Your task to perform on an android device: turn off data saver in the chrome app Image 0: 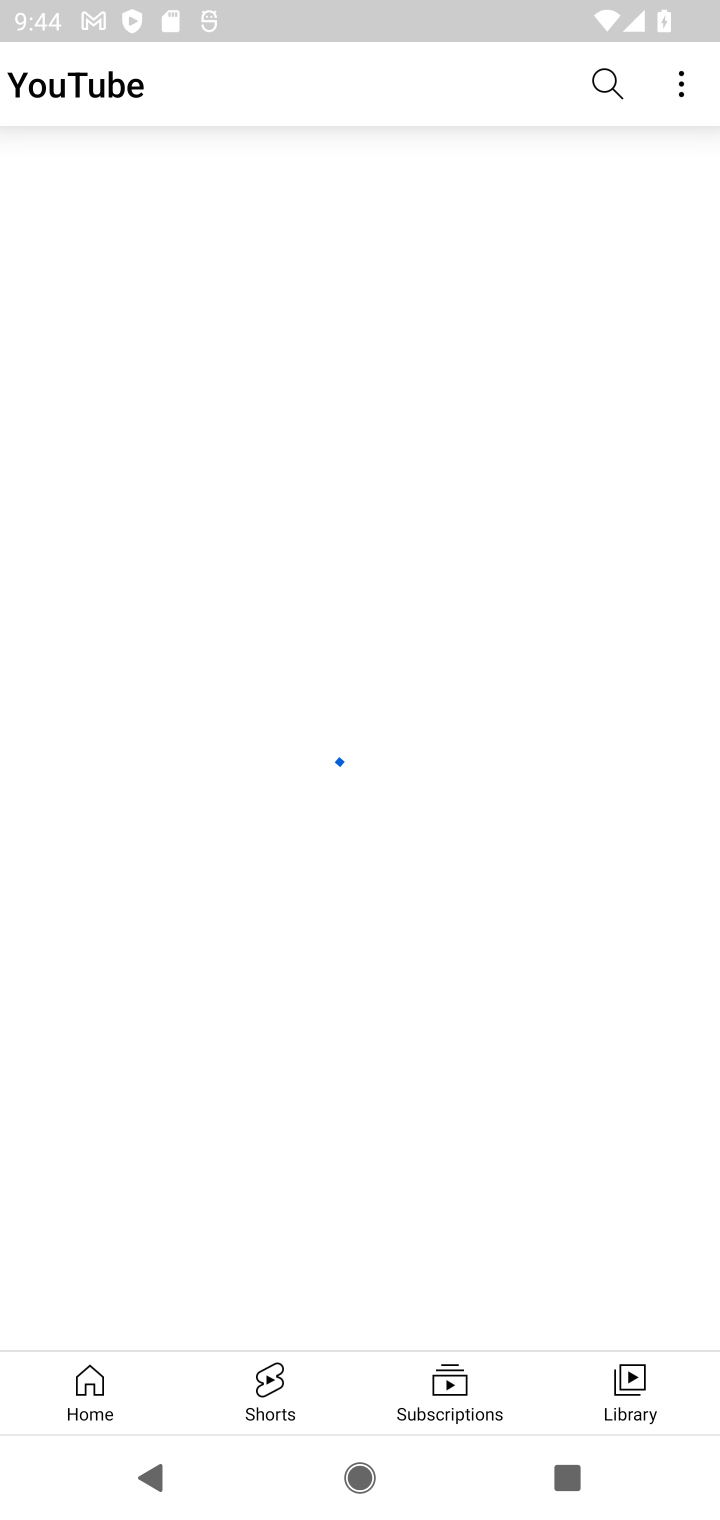
Step 0: press home button
Your task to perform on an android device: turn off data saver in the chrome app Image 1: 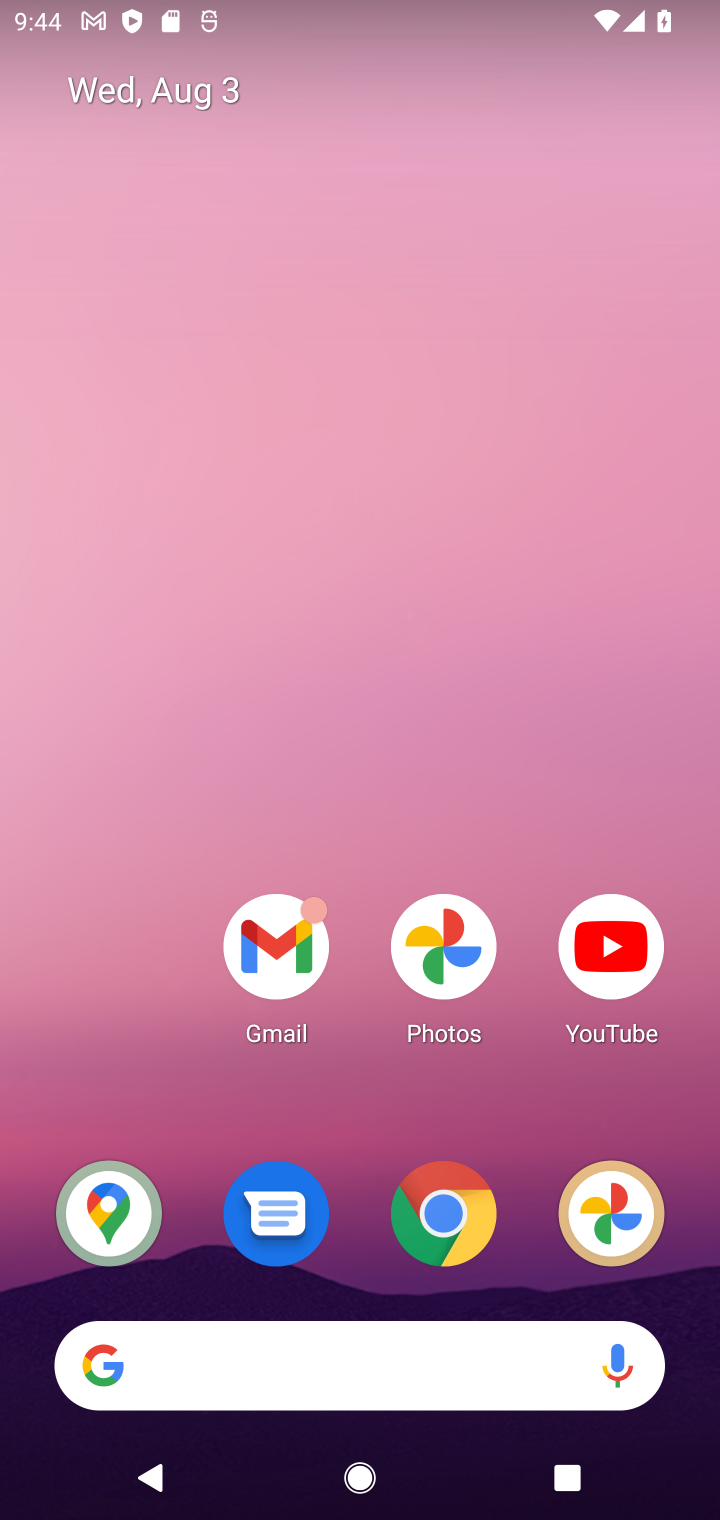
Step 1: drag from (403, 1302) to (406, 19)
Your task to perform on an android device: turn off data saver in the chrome app Image 2: 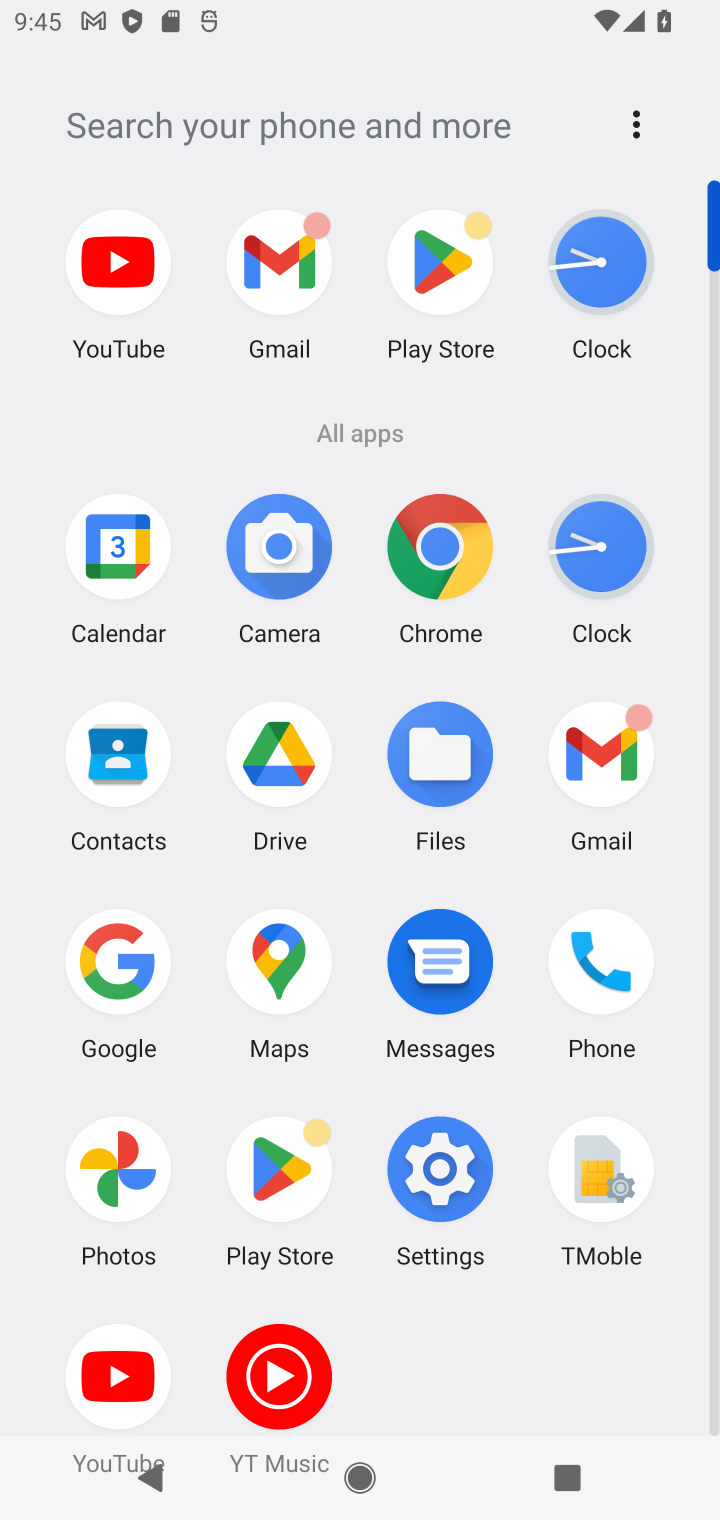
Step 2: click (429, 550)
Your task to perform on an android device: turn off data saver in the chrome app Image 3: 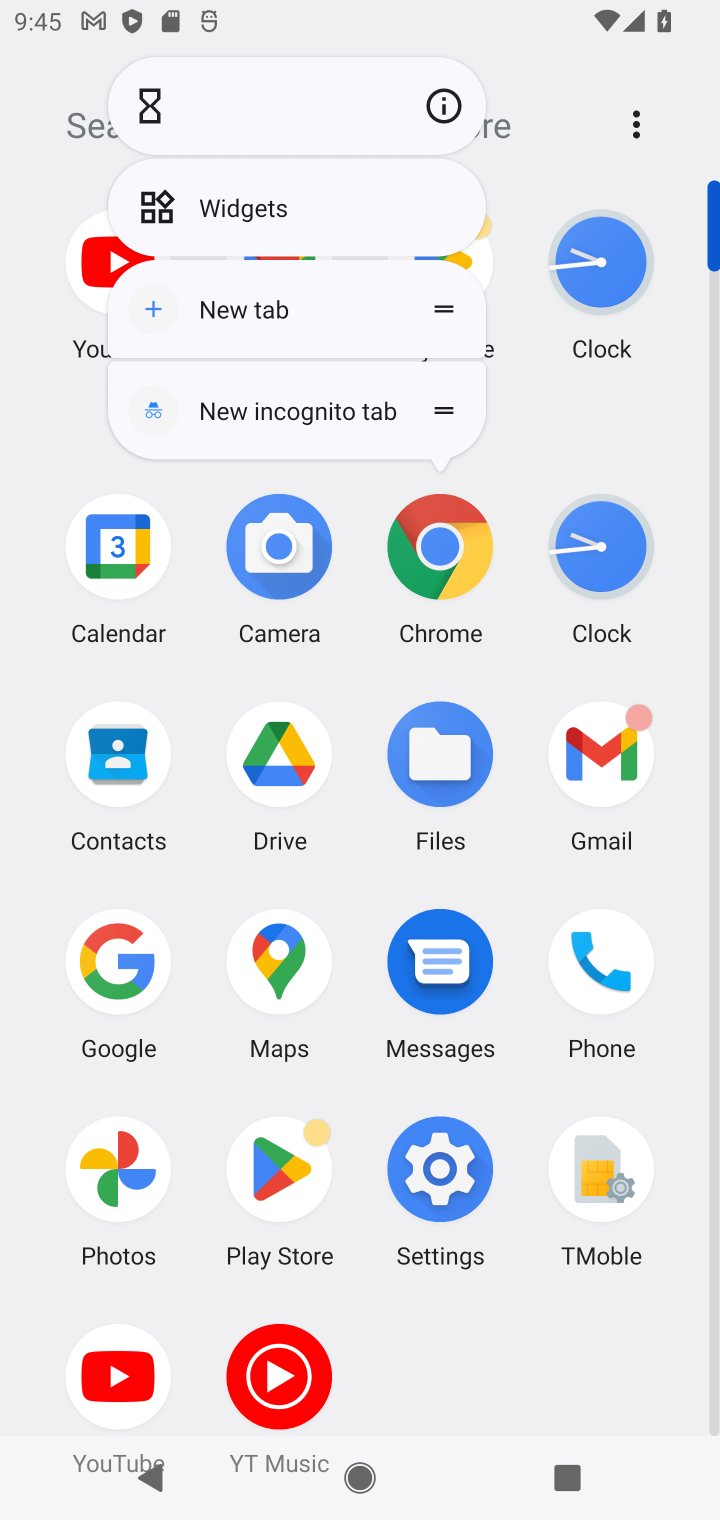
Step 3: click (449, 561)
Your task to perform on an android device: turn off data saver in the chrome app Image 4: 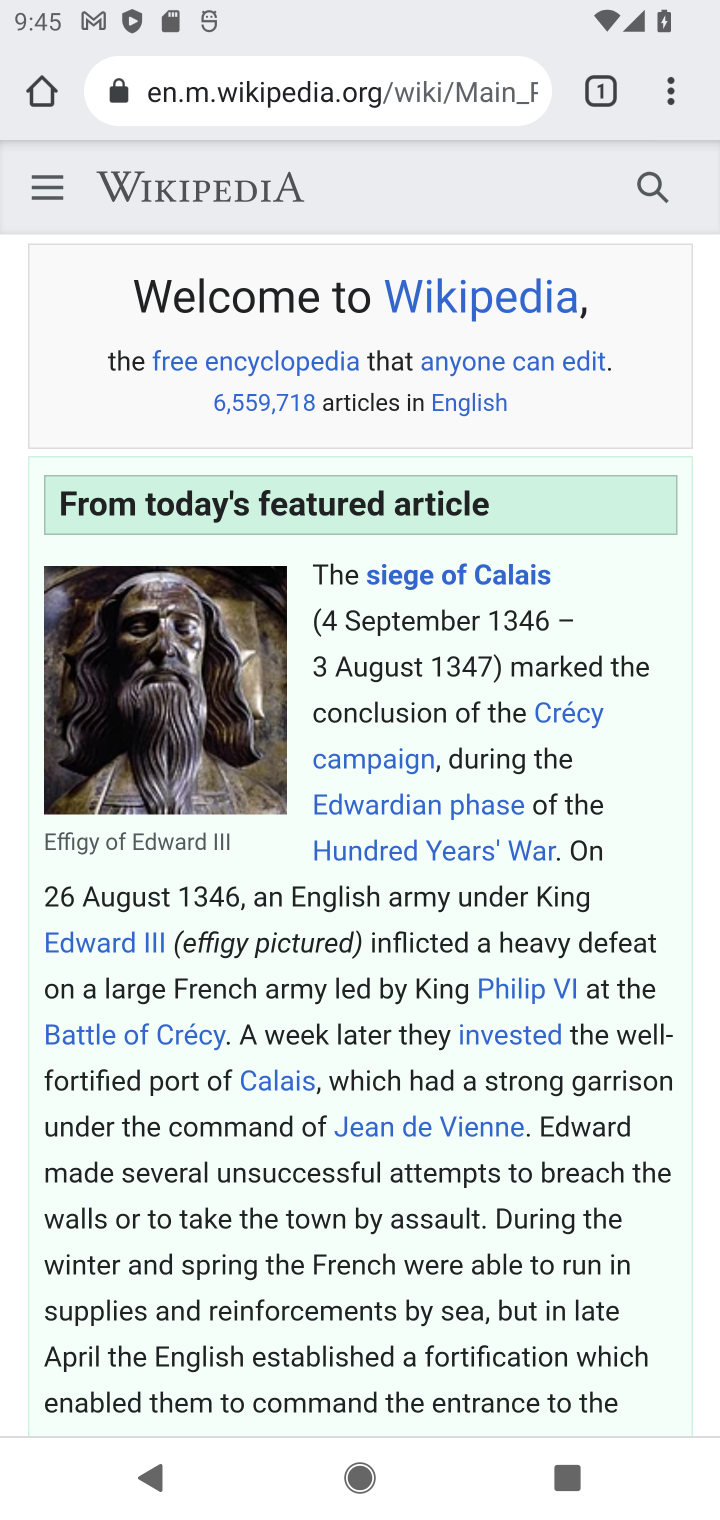
Step 4: click (659, 89)
Your task to perform on an android device: turn off data saver in the chrome app Image 5: 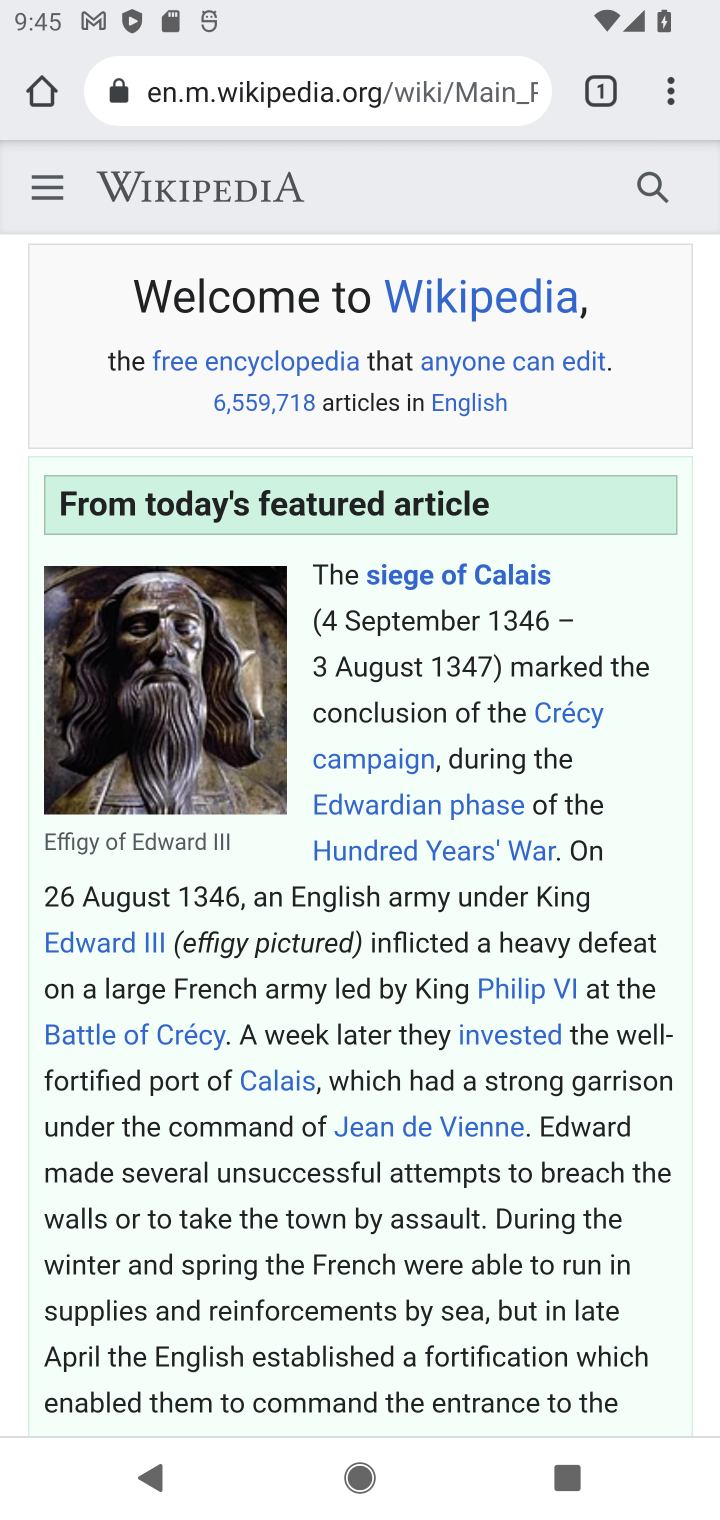
Step 5: drag from (659, 92) to (385, 1071)
Your task to perform on an android device: turn off data saver in the chrome app Image 6: 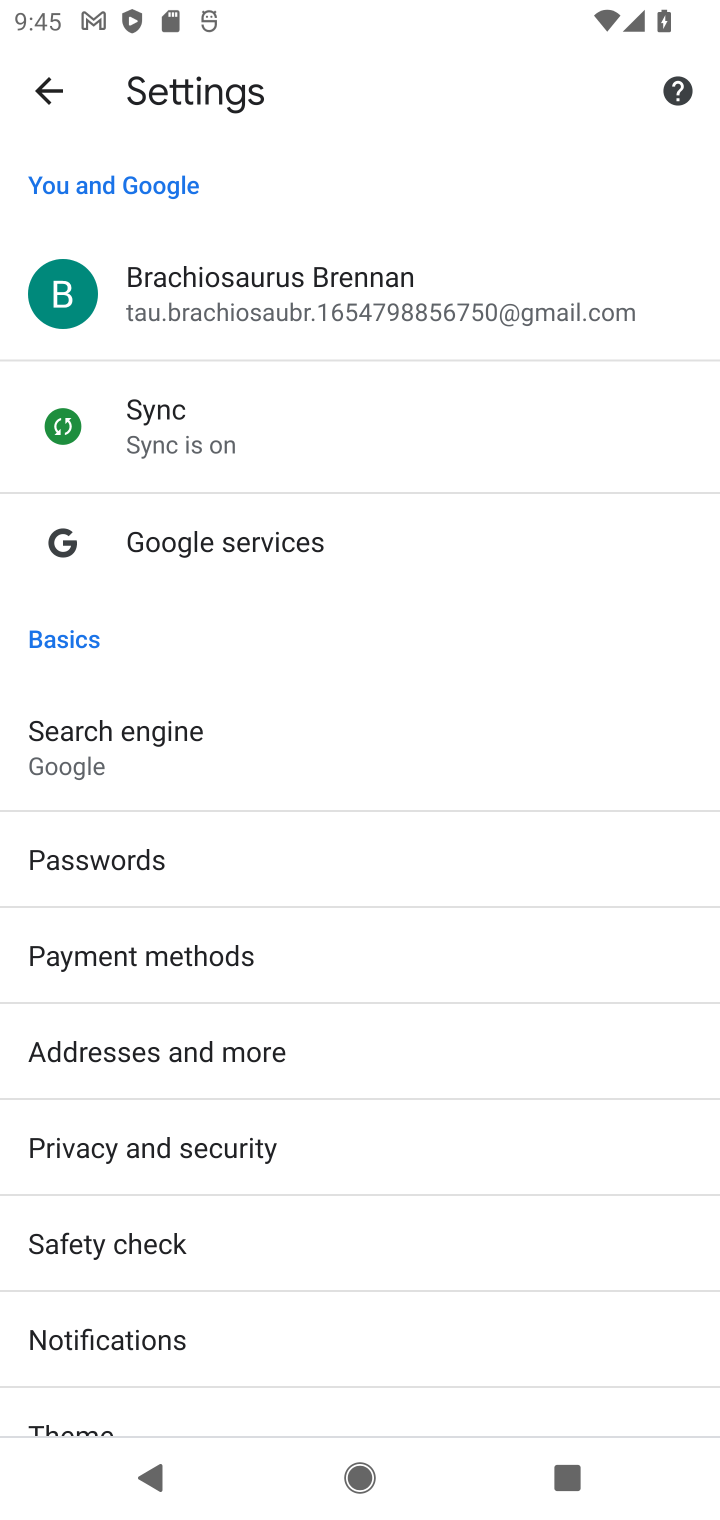
Step 6: drag from (501, 1211) to (509, 294)
Your task to perform on an android device: turn off data saver in the chrome app Image 7: 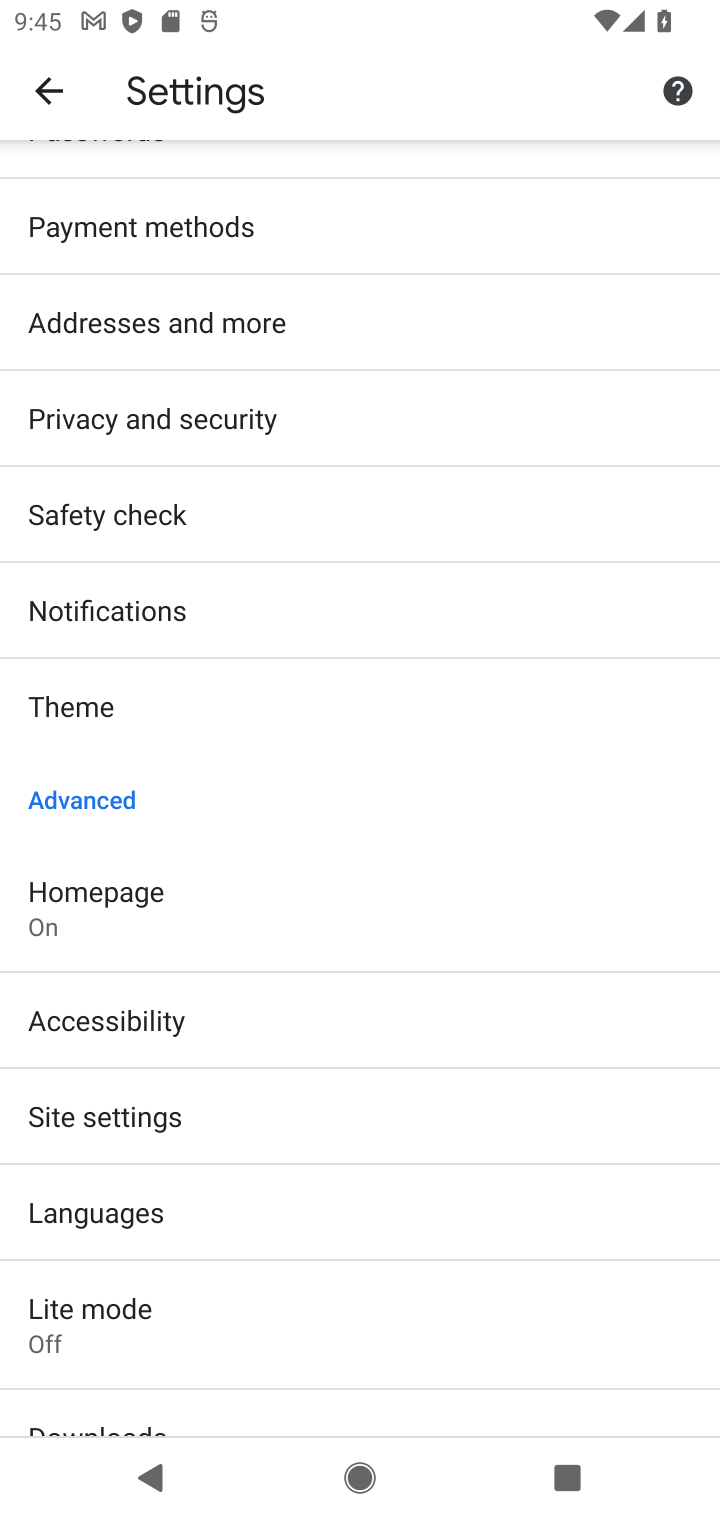
Step 7: click (176, 1315)
Your task to perform on an android device: turn off data saver in the chrome app Image 8: 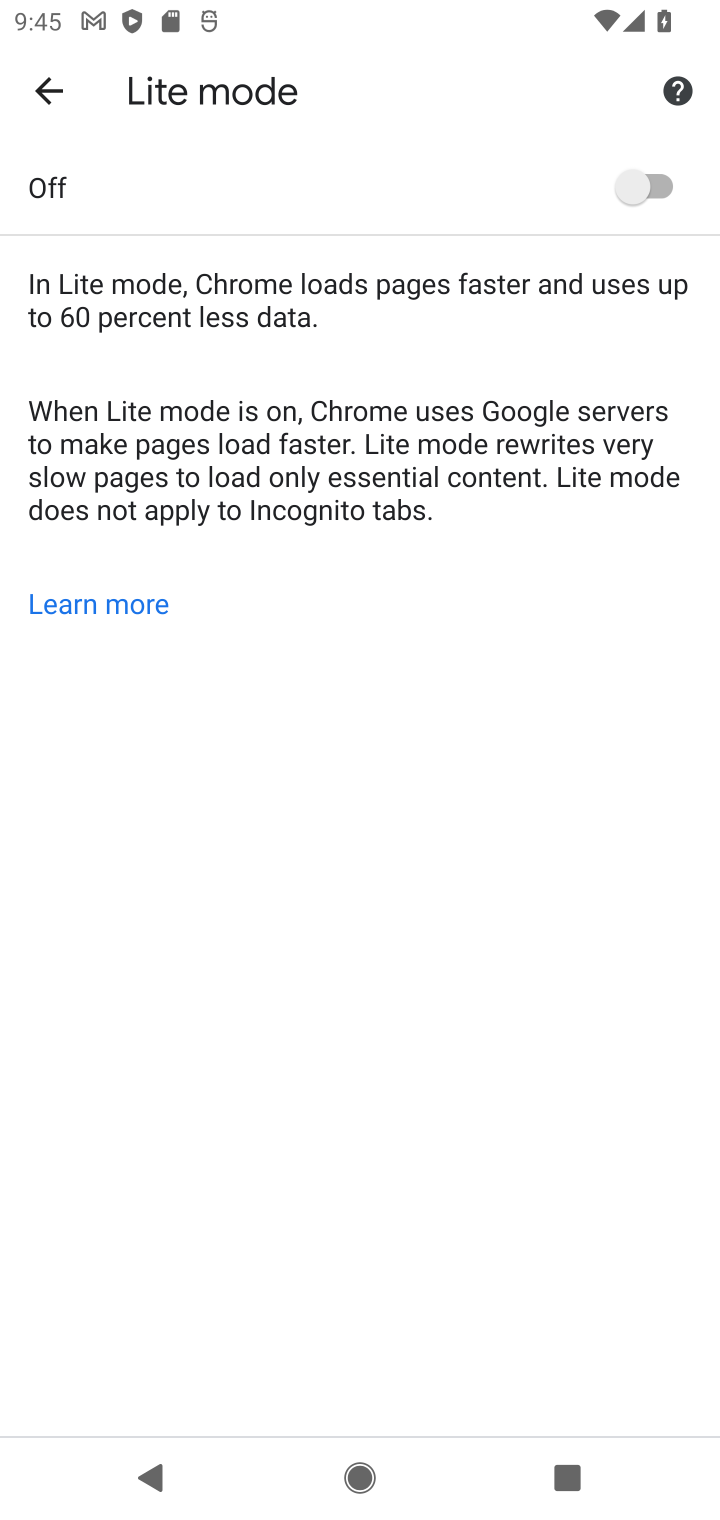
Step 8: task complete